Your task to perform on an android device: Open Google Chrome and open the bookmarks view Image 0: 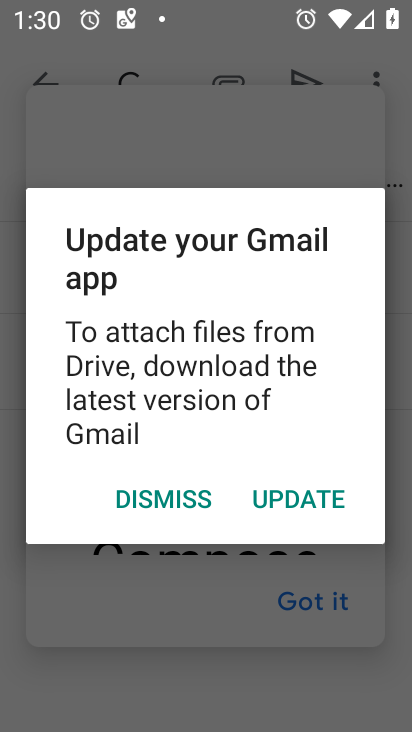
Step 0: press back button
Your task to perform on an android device: Open Google Chrome and open the bookmarks view Image 1: 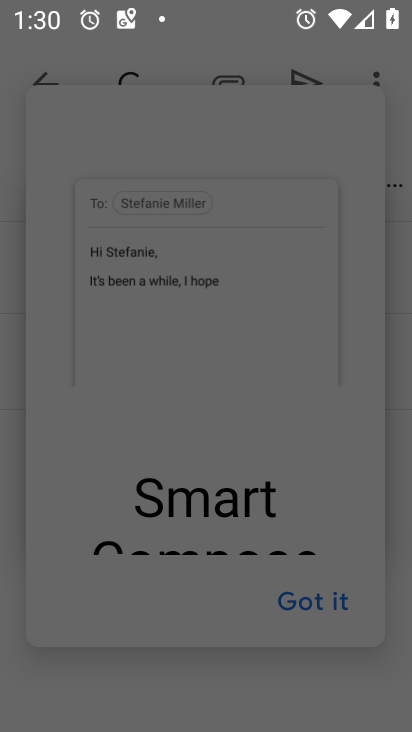
Step 1: press back button
Your task to perform on an android device: Open Google Chrome and open the bookmarks view Image 2: 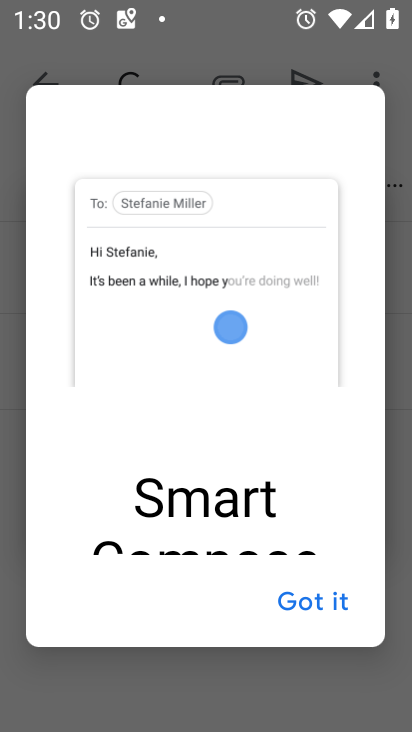
Step 2: press back button
Your task to perform on an android device: Open Google Chrome and open the bookmarks view Image 3: 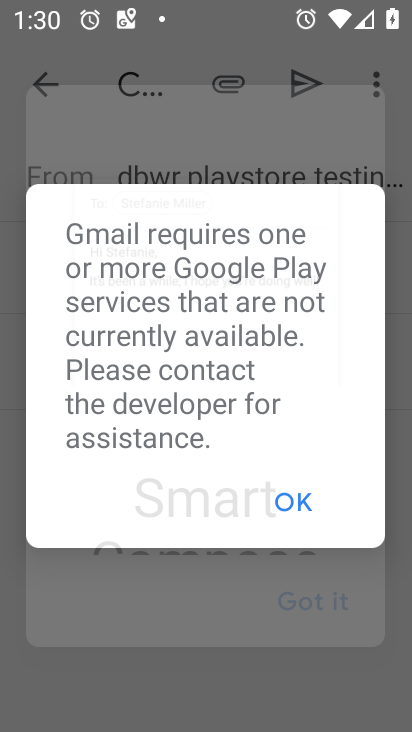
Step 3: press home button
Your task to perform on an android device: Open Google Chrome and open the bookmarks view Image 4: 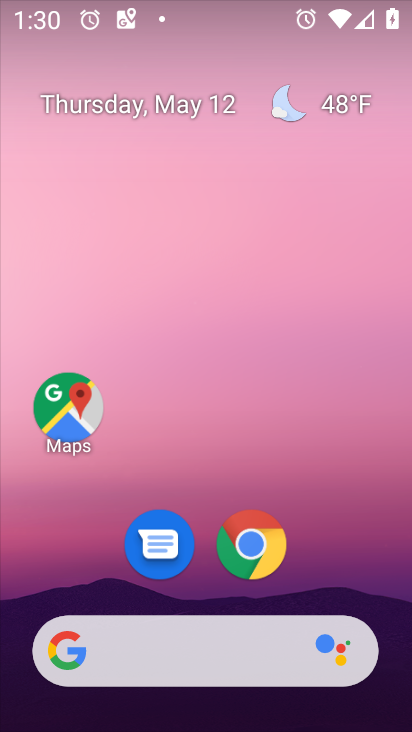
Step 4: drag from (335, 506) to (247, 0)
Your task to perform on an android device: Open Google Chrome and open the bookmarks view Image 5: 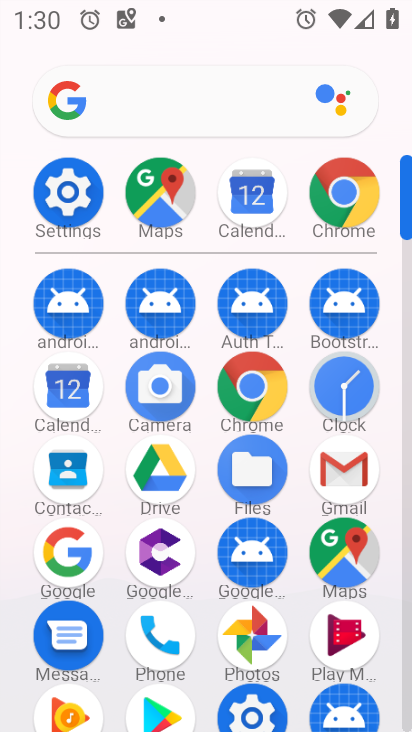
Step 5: drag from (10, 617) to (24, 348)
Your task to perform on an android device: Open Google Chrome and open the bookmarks view Image 6: 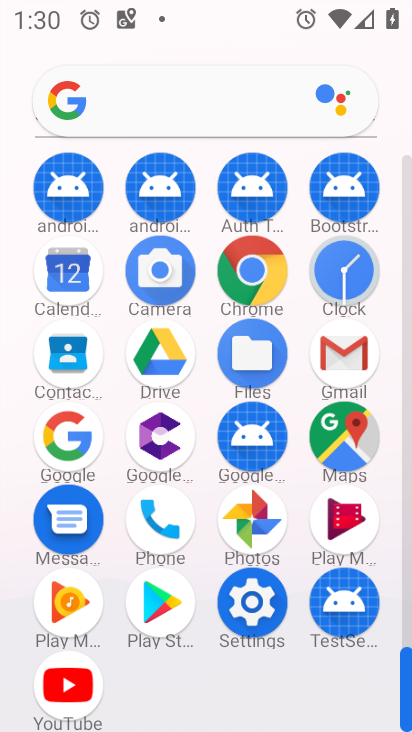
Step 6: click (248, 267)
Your task to perform on an android device: Open Google Chrome and open the bookmarks view Image 7: 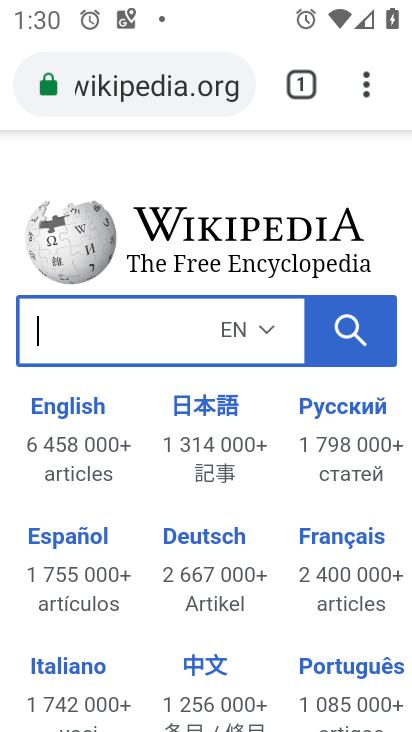
Step 7: task complete